Your task to perform on an android device: Is it going to rain tomorrow? Image 0: 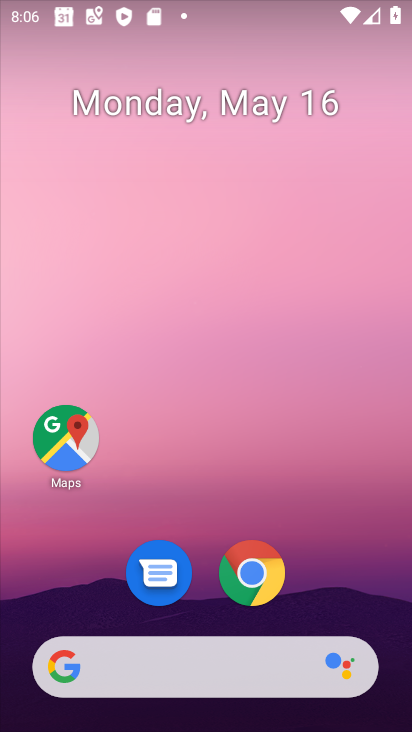
Step 0: drag from (368, 576) to (260, 110)
Your task to perform on an android device: Is it going to rain tomorrow? Image 1: 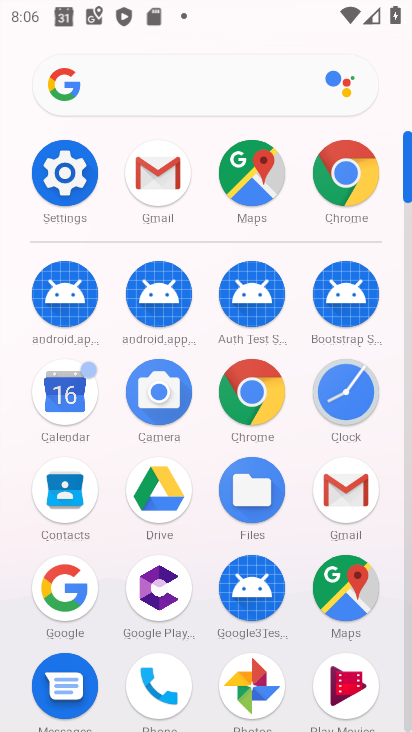
Step 1: press home button
Your task to perform on an android device: Is it going to rain tomorrow? Image 2: 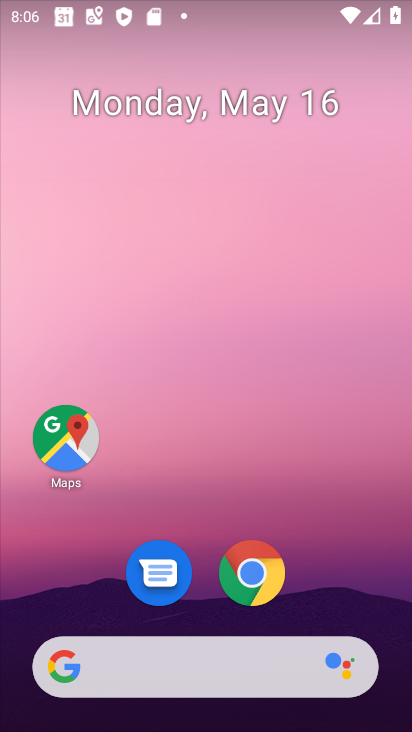
Step 2: drag from (336, 523) to (243, 57)
Your task to perform on an android device: Is it going to rain tomorrow? Image 3: 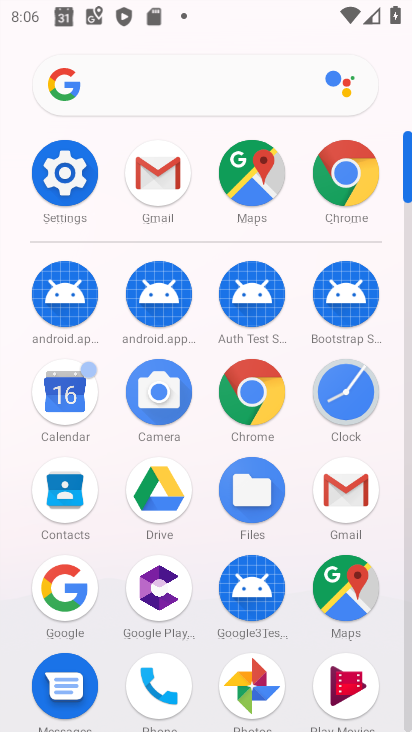
Step 3: press home button
Your task to perform on an android device: Is it going to rain tomorrow? Image 4: 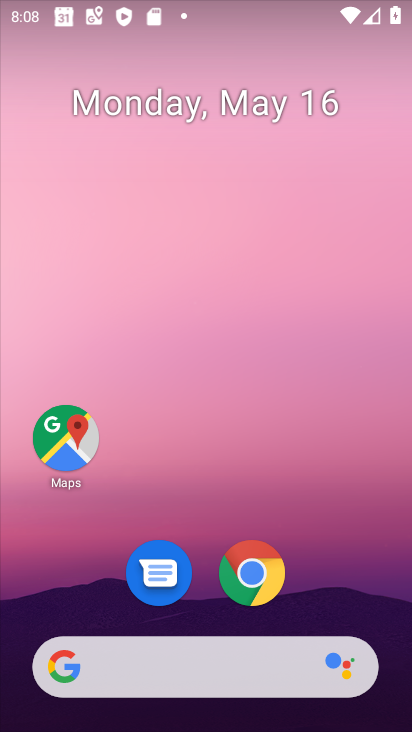
Step 4: click (76, 679)
Your task to perform on an android device: Is it going to rain tomorrow? Image 5: 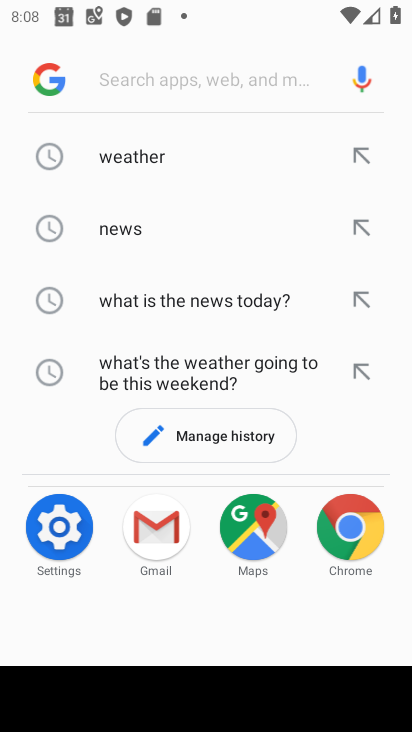
Step 5: click (44, 82)
Your task to perform on an android device: Is it going to rain tomorrow? Image 6: 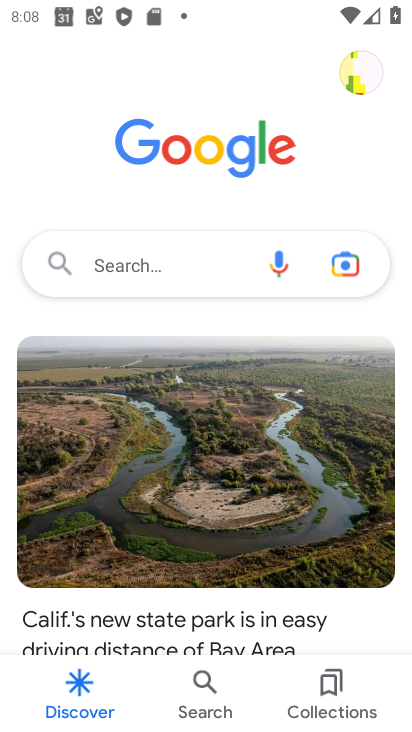
Step 6: task complete